Your task to perform on an android device: choose inbox layout in the gmail app Image 0: 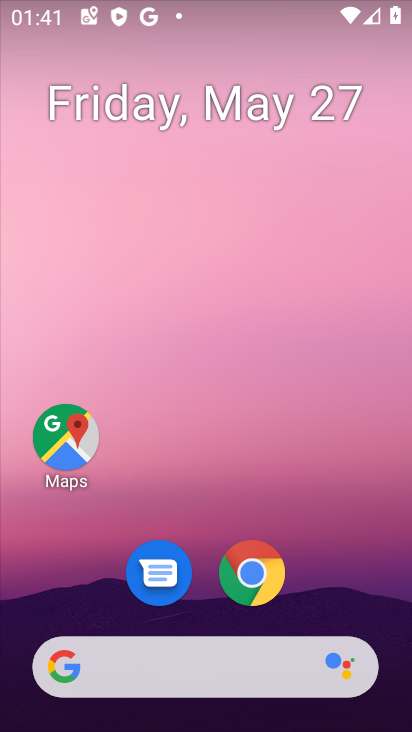
Step 0: drag from (188, 617) to (135, 79)
Your task to perform on an android device: choose inbox layout in the gmail app Image 1: 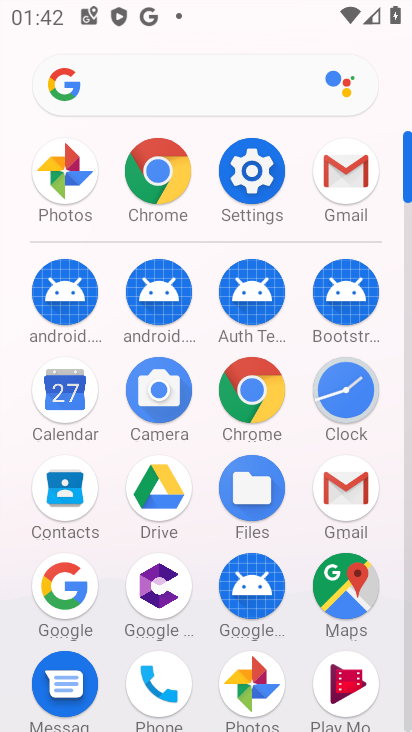
Step 1: click (357, 508)
Your task to perform on an android device: choose inbox layout in the gmail app Image 2: 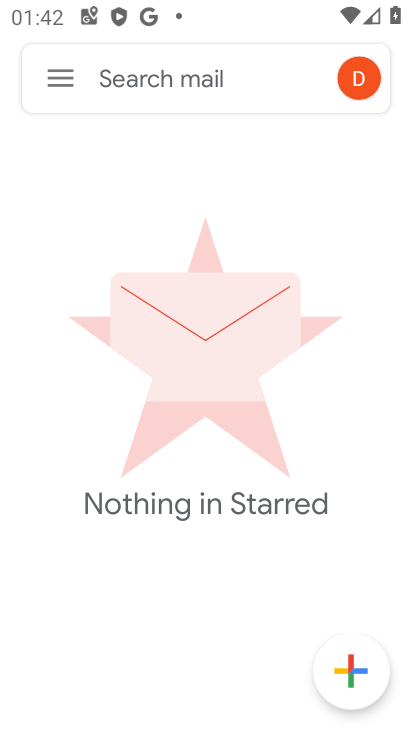
Step 2: click (49, 71)
Your task to perform on an android device: choose inbox layout in the gmail app Image 3: 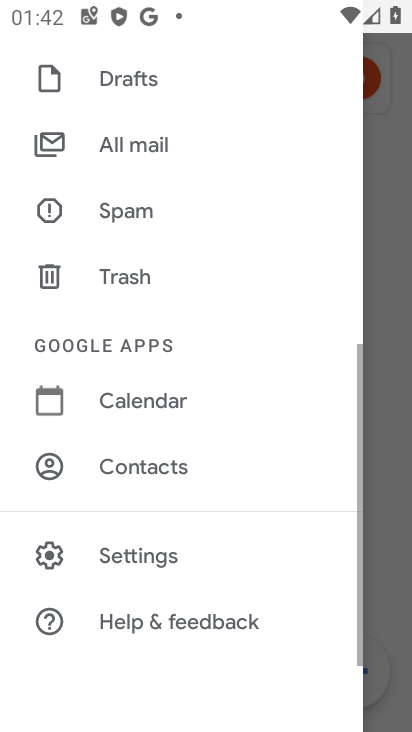
Step 3: click (91, 545)
Your task to perform on an android device: choose inbox layout in the gmail app Image 4: 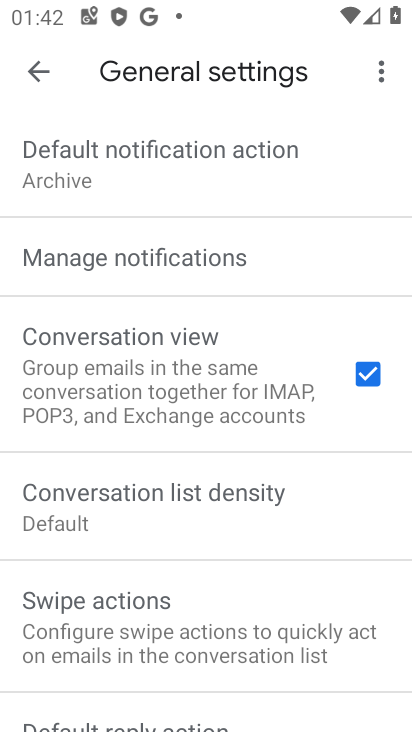
Step 4: click (25, 70)
Your task to perform on an android device: choose inbox layout in the gmail app Image 5: 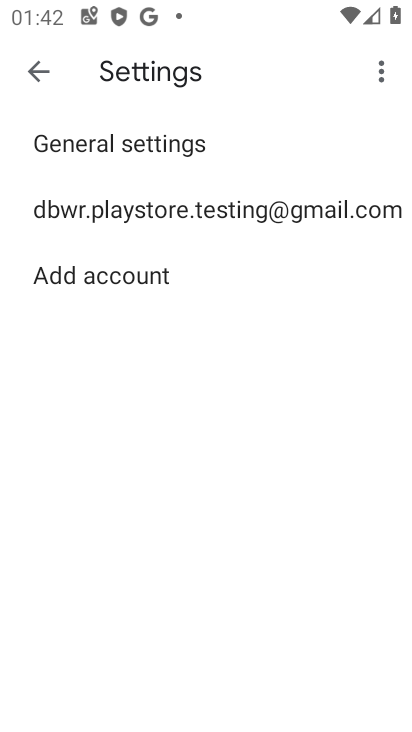
Step 5: click (127, 202)
Your task to perform on an android device: choose inbox layout in the gmail app Image 6: 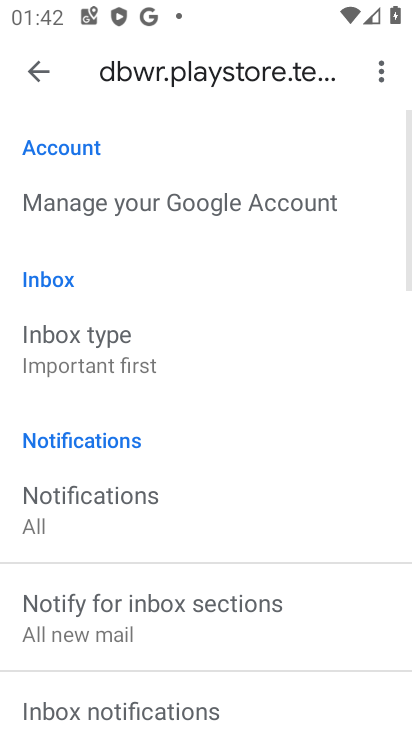
Step 6: click (120, 348)
Your task to perform on an android device: choose inbox layout in the gmail app Image 7: 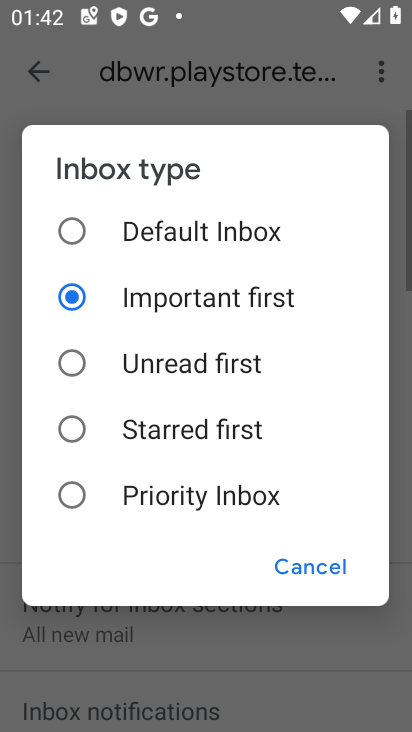
Step 7: click (123, 222)
Your task to perform on an android device: choose inbox layout in the gmail app Image 8: 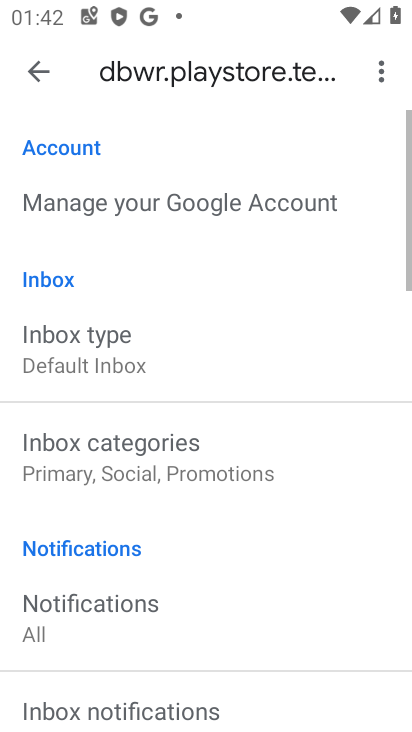
Step 8: click (81, 367)
Your task to perform on an android device: choose inbox layout in the gmail app Image 9: 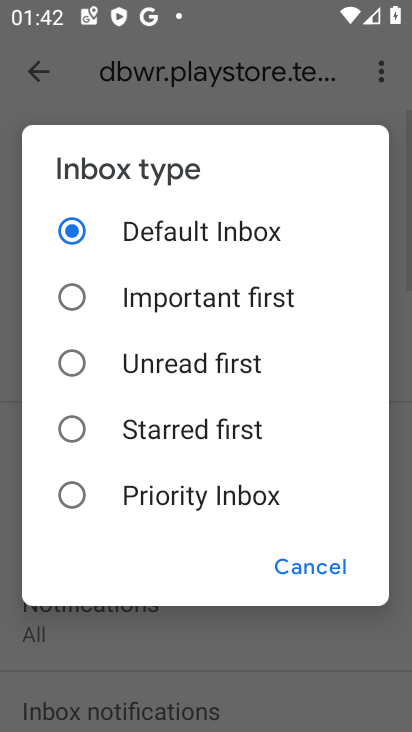
Step 9: click (126, 494)
Your task to perform on an android device: choose inbox layout in the gmail app Image 10: 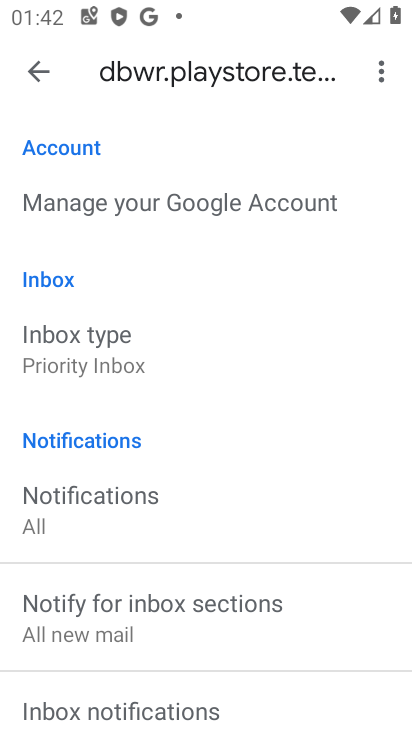
Step 10: click (33, 62)
Your task to perform on an android device: choose inbox layout in the gmail app Image 11: 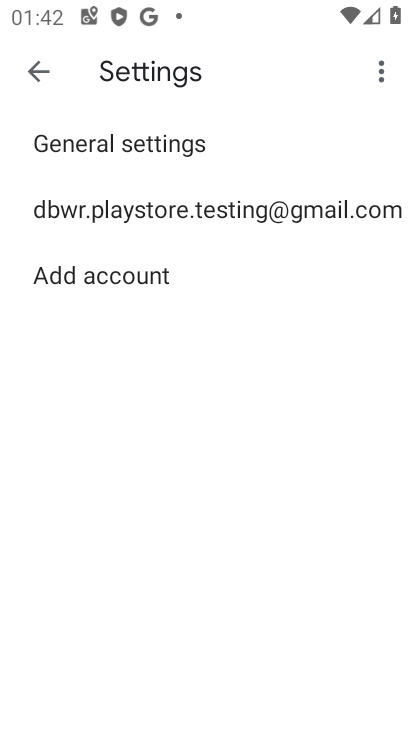
Step 11: click (27, 50)
Your task to perform on an android device: choose inbox layout in the gmail app Image 12: 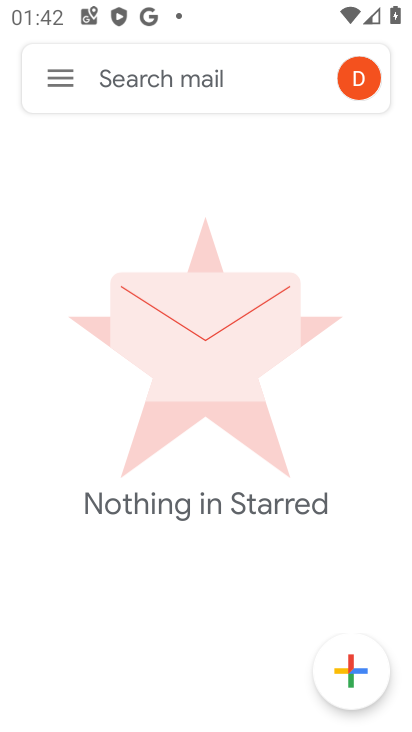
Step 12: click (40, 67)
Your task to perform on an android device: choose inbox layout in the gmail app Image 13: 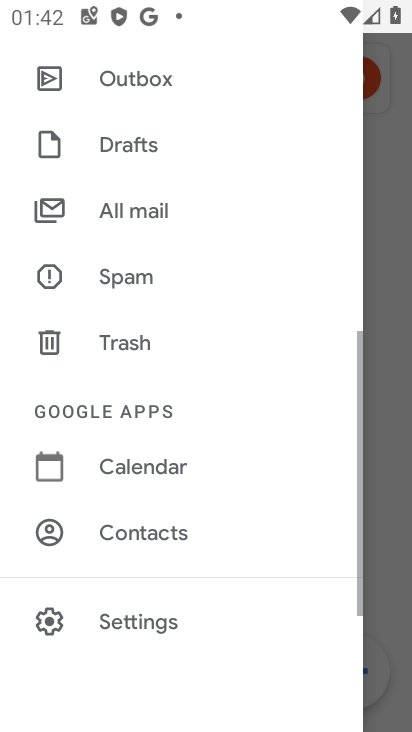
Step 13: drag from (94, 128) to (0, 539)
Your task to perform on an android device: choose inbox layout in the gmail app Image 14: 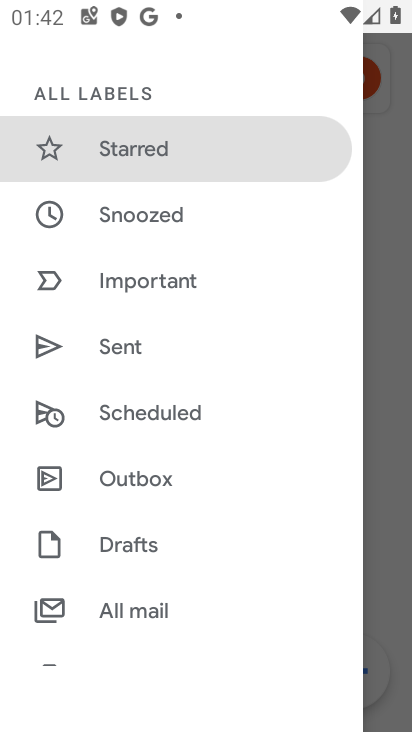
Step 14: drag from (124, 106) to (44, 599)
Your task to perform on an android device: choose inbox layout in the gmail app Image 15: 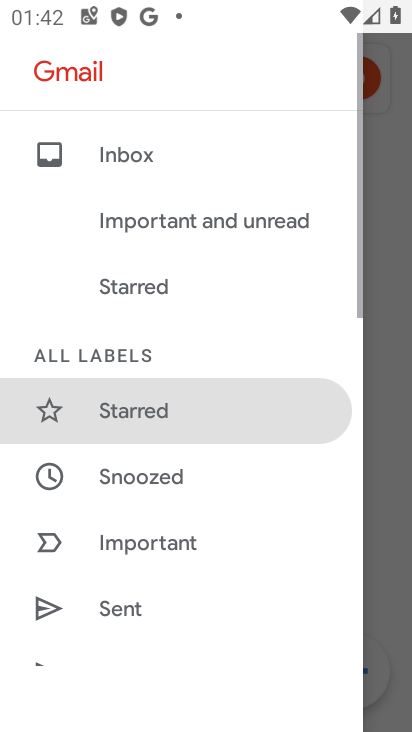
Step 15: click (123, 176)
Your task to perform on an android device: choose inbox layout in the gmail app Image 16: 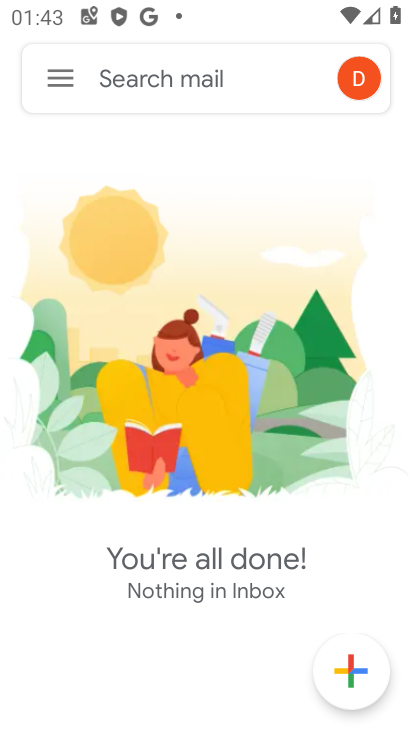
Step 16: task complete